Your task to perform on an android device: open sync settings in chrome Image 0: 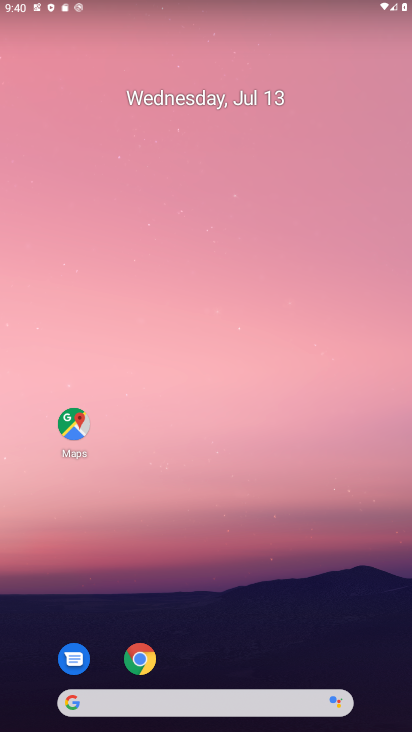
Step 0: click (149, 659)
Your task to perform on an android device: open sync settings in chrome Image 1: 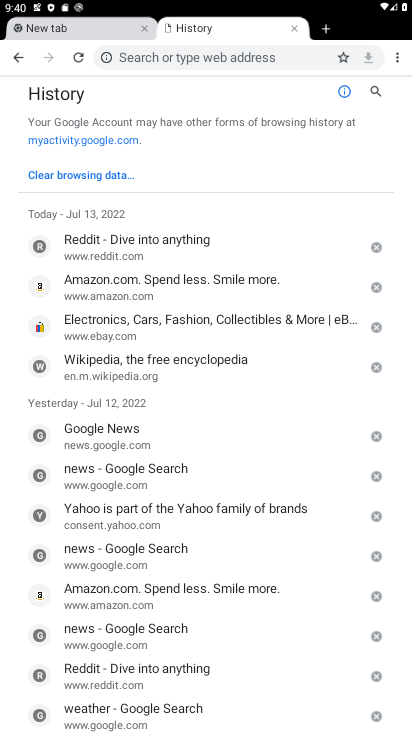
Step 1: click (399, 58)
Your task to perform on an android device: open sync settings in chrome Image 2: 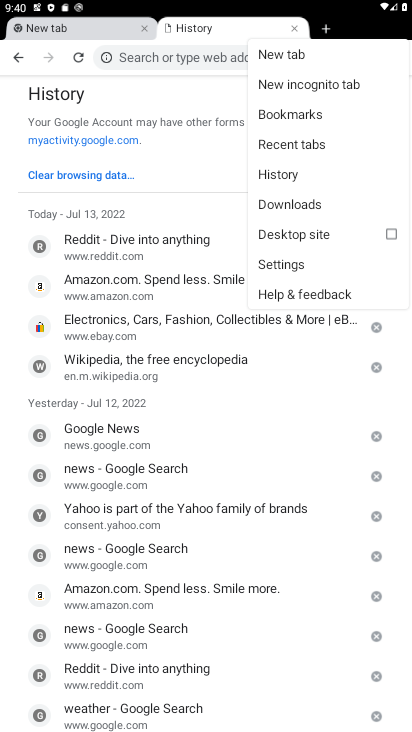
Step 2: click (285, 266)
Your task to perform on an android device: open sync settings in chrome Image 3: 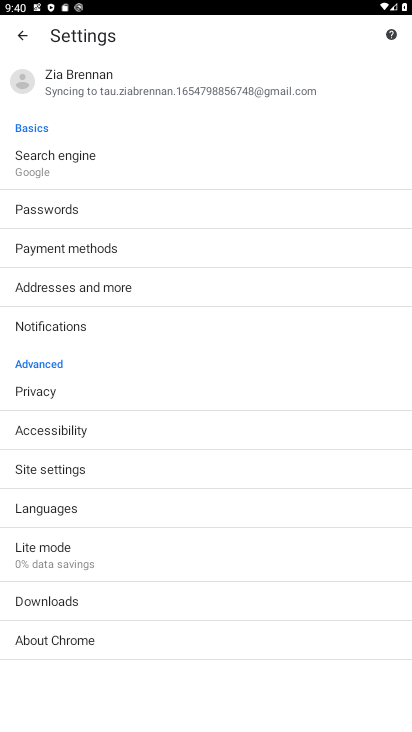
Step 3: click (123, 88)
Your task to perform on an android device: open sync settings in chrome Image 4: 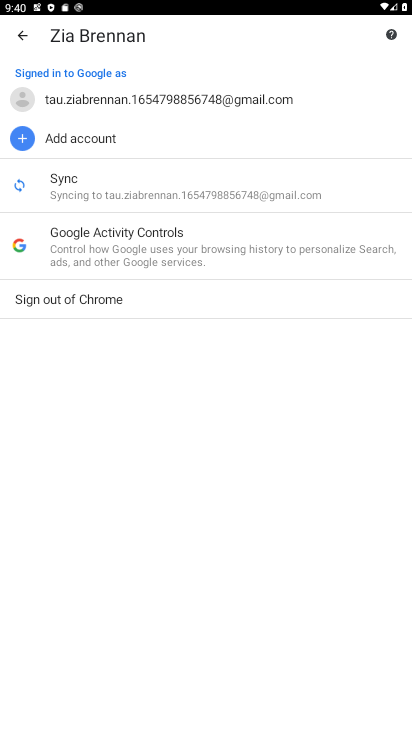
Step 4: click (104, 172)
Your task to perform on an android device: open sync settings in chrome Image 5: 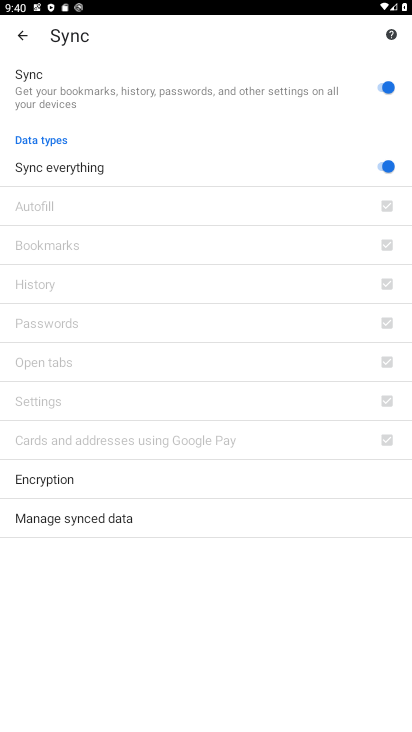
Step 5: task complete